Your task to perform on an android device: install app "Google Docs" Image 0: 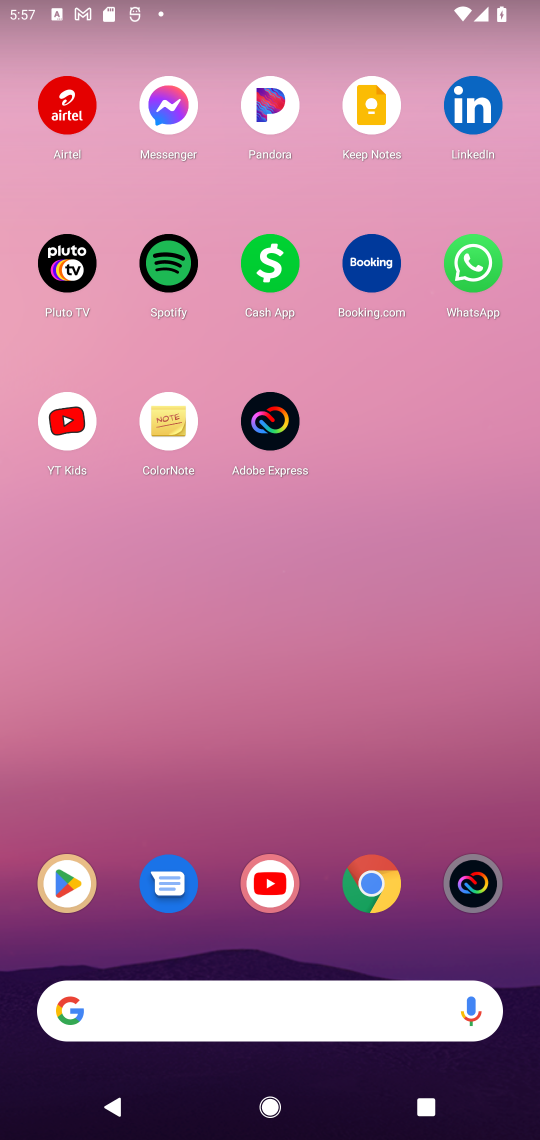
Step 0: click (69, 890)
Your task to perform on an android device: install app "Google Docs" Image 1: 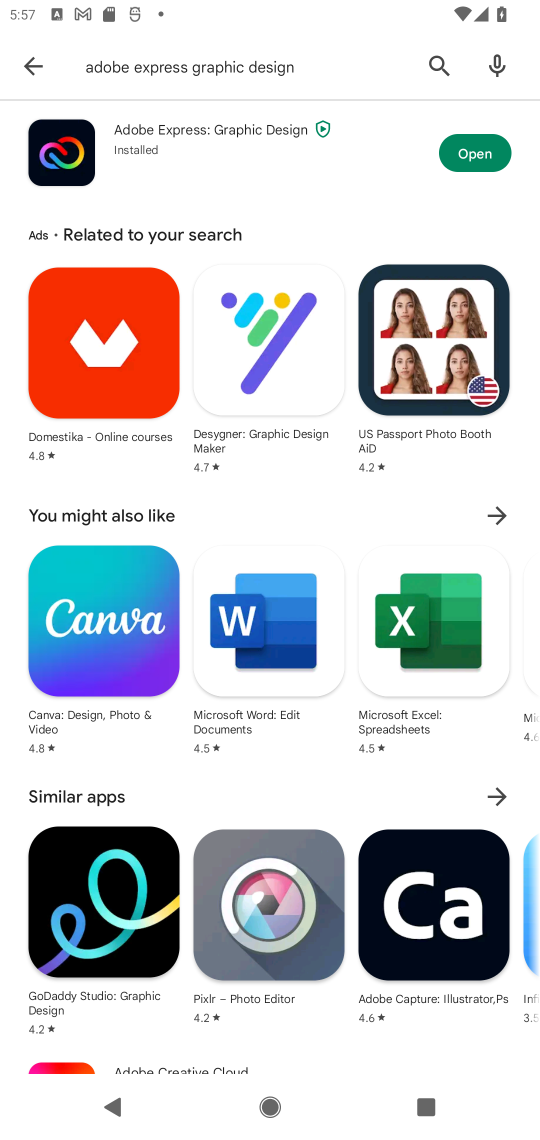
Step 1: click (39, 72)
Your task to perform on an android device: install app "Google Docs" Image 2: 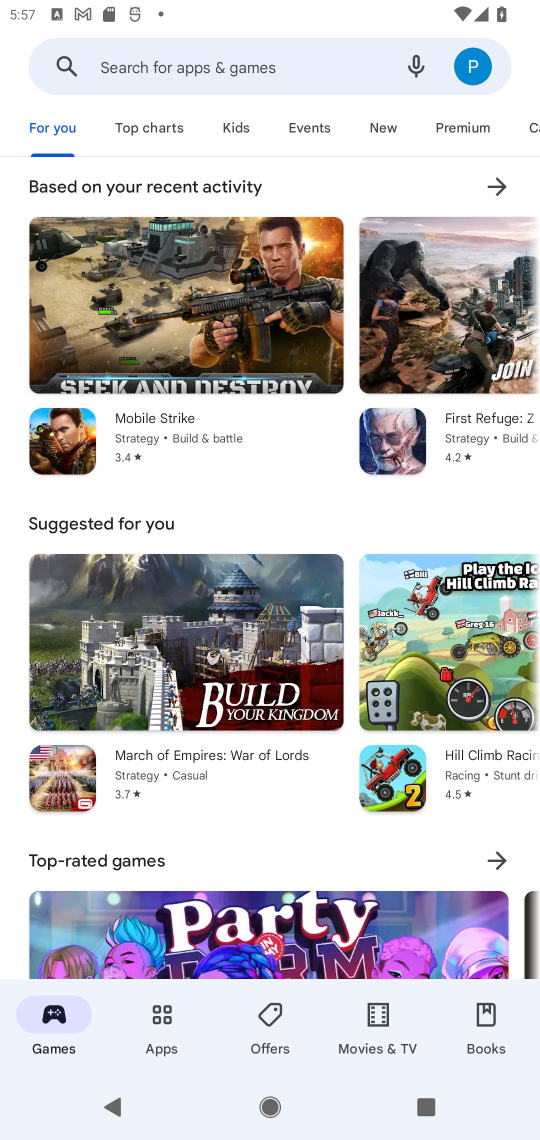
Step 2: click (39, 72)
Your task to perform on an android device: install app "Google Docs" Image 3: 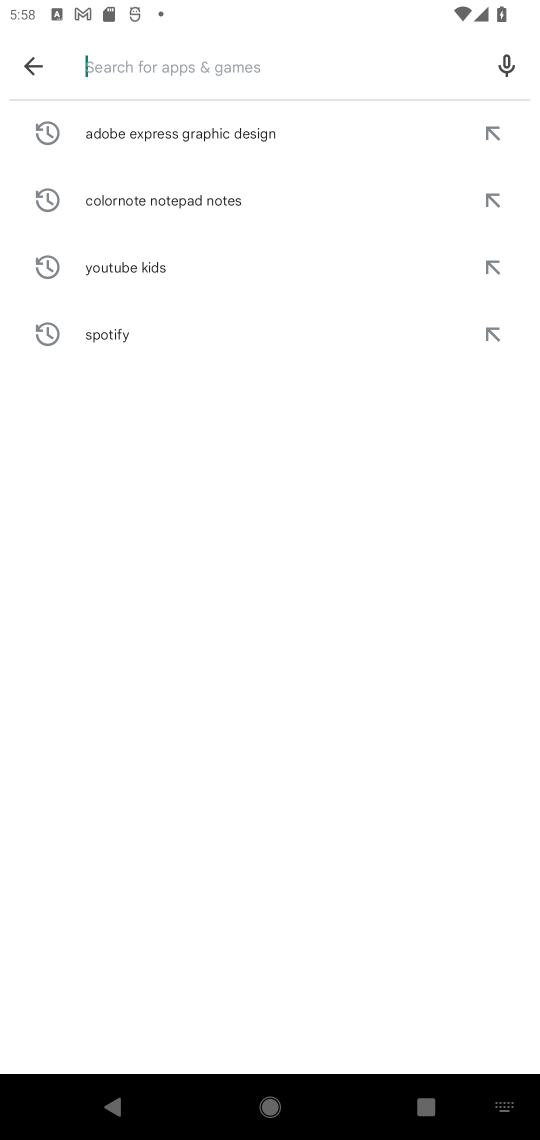
Step 3: click (176, 68)
Your task to perform on an android device: install app "Google Docs" Image 4: 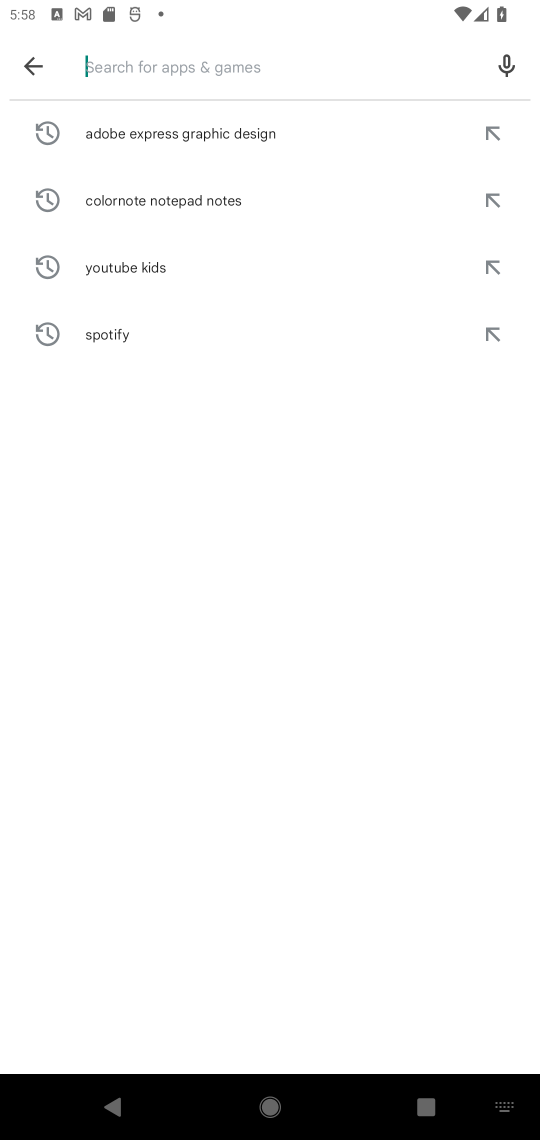
Step 4: type "Google Docs"
Your task to perform on an android device: install app "Google Docs" Image 5: 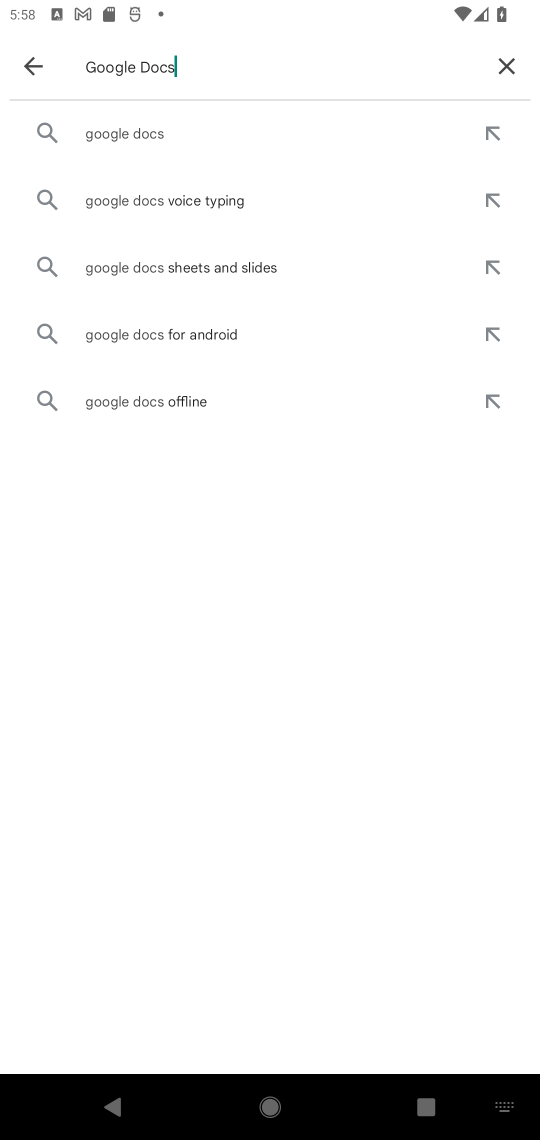
Step 5: type ""
Your task to perform on an android device: install app "Google Docs" Image 6: 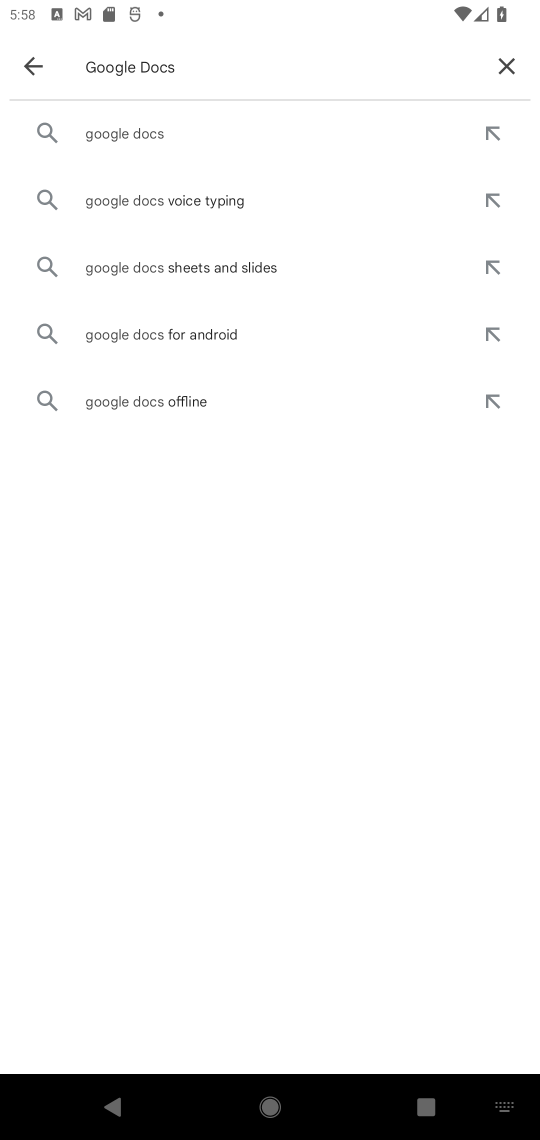
Step 6: click (149, 127)
Your task to perform on an android device: install app "Google Docs" Image 7: 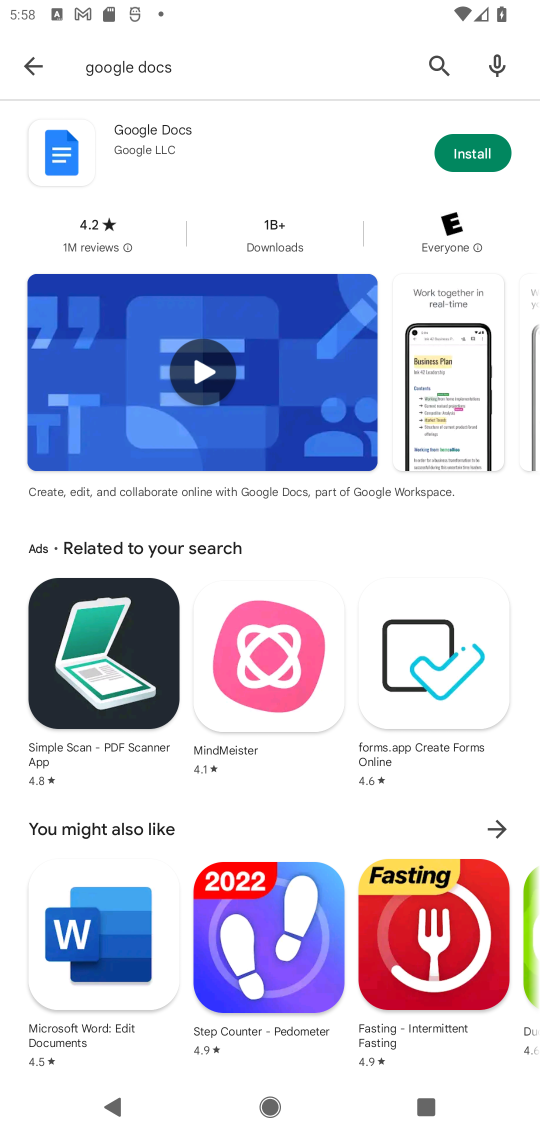
Step 7: click (475, 158)
Your task to perform on an android device: install app "Google Docs" Image 8: 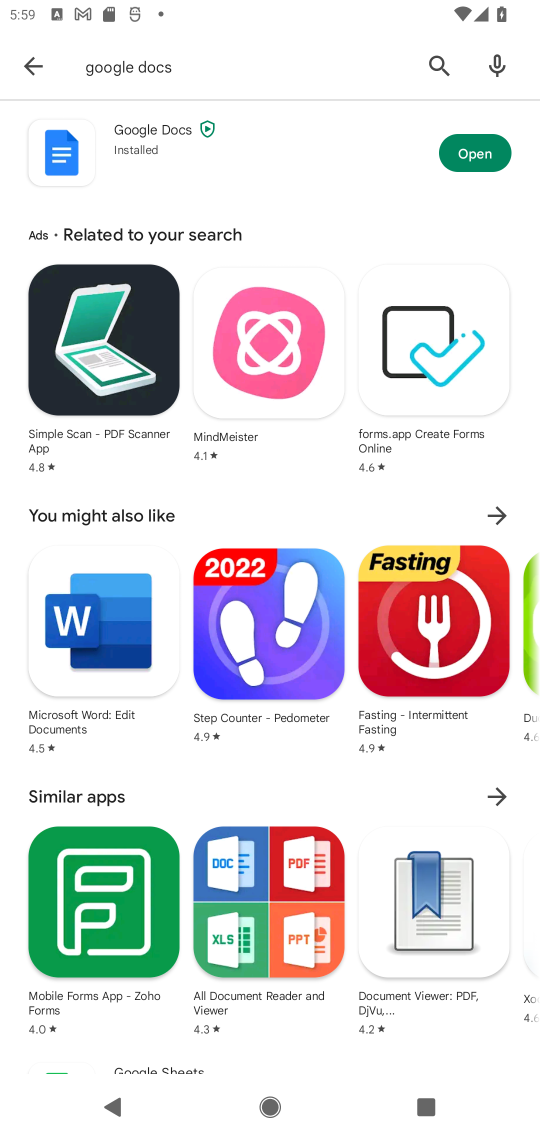
Step 8: click (463, 159)
Your task to perform on an android device: install app "Google Docs" Image 9: 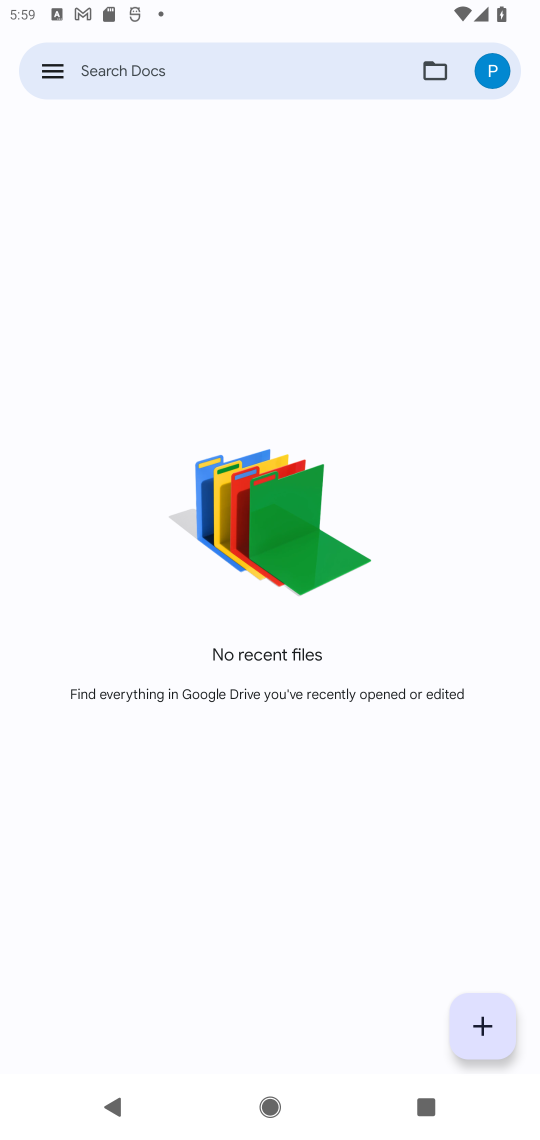
Step 9: task complete